Your task to perform on an android device: Go to CNN.com Image 0: 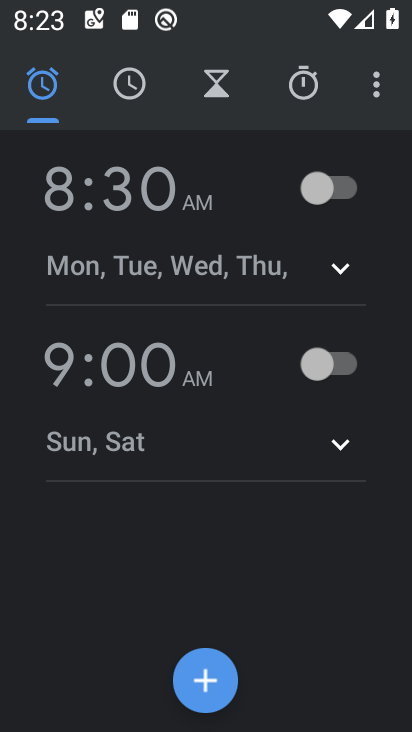
Step 0: press home button
Your task to perform on an android device: Go to CNN.com Image 1: 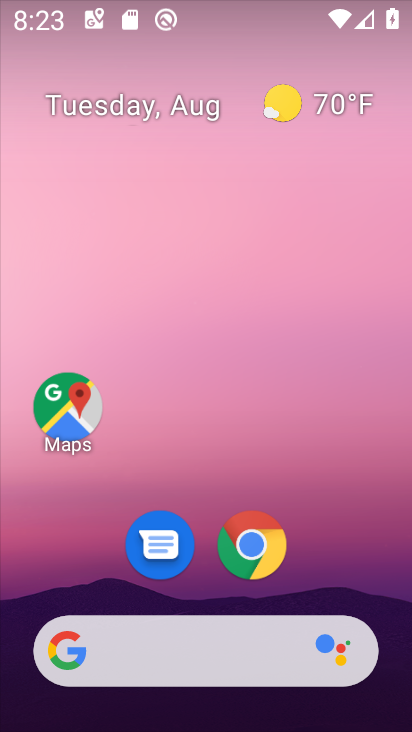
Step 1: drag from (198, 524) to (228, 172)
Your task to perform on an android device: Go to CNN.com Image 2: 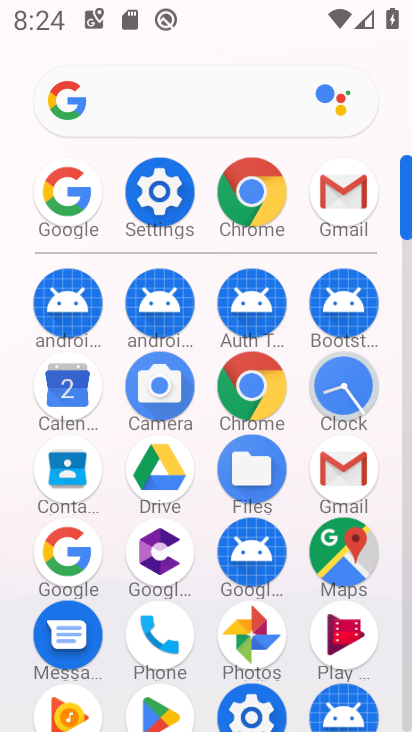
Step 2: click (248, 200)
Your task to perform on an android device: Go to CNN.com Image 3: 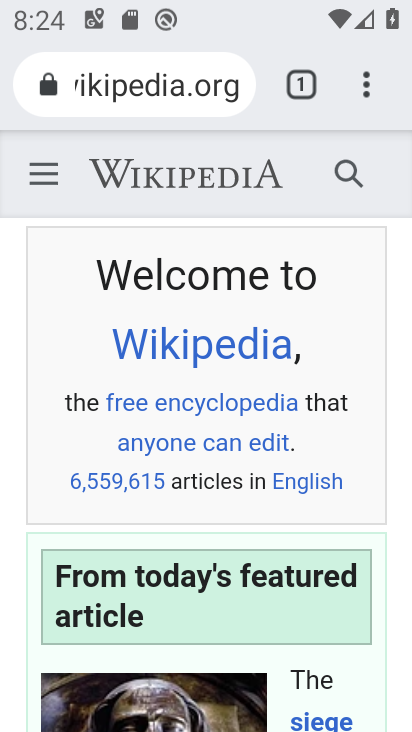
Step 3: click (224, 94)
Your task to perform on an android device: Go to CNN.com Image 4: 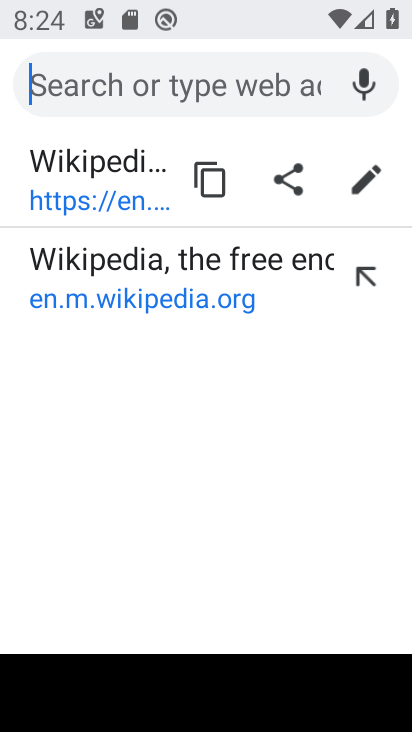
Step 4: type "cnn"
Your task to perform on an android device: Go to CNN.com Image 5: 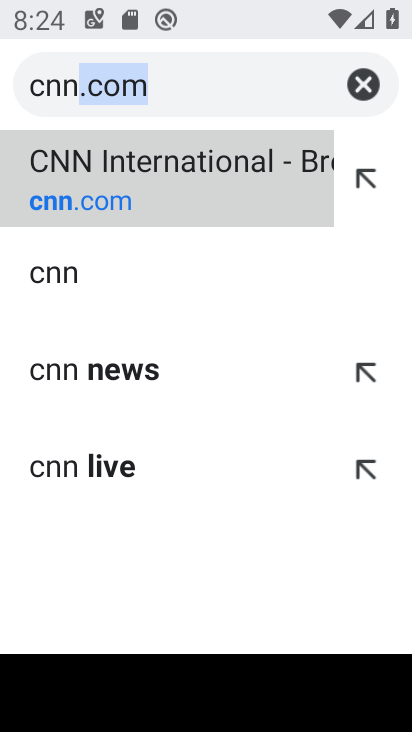
Step 5: click (248, 168)
Your task to perform on an android device: Go to CNN.com Image 6: 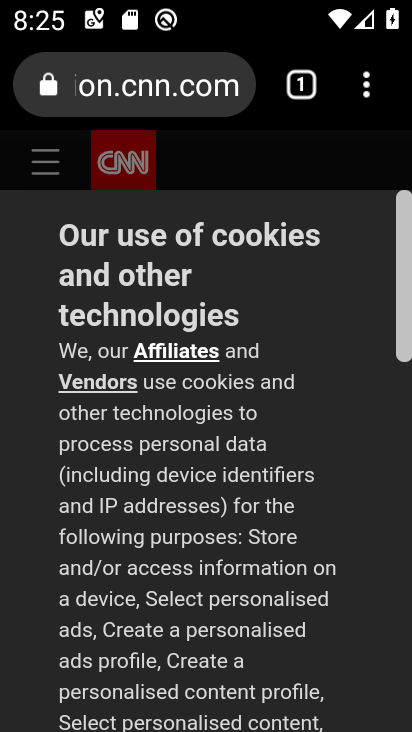
Step 6: task complete